Your task to perform on an android device: Open maps Image 0: 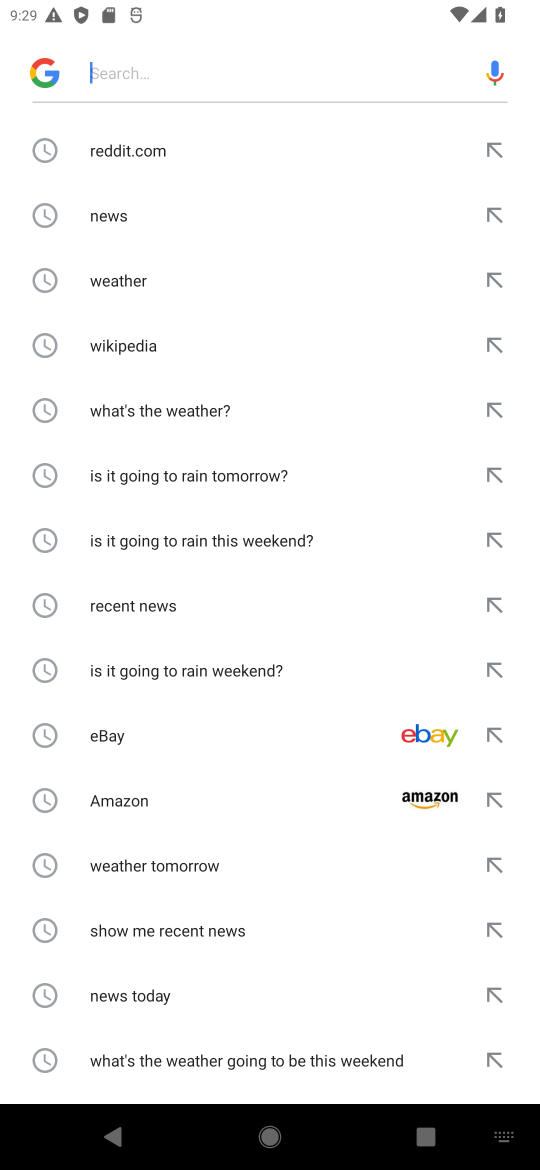
Step 0: press home button
Your task to perform on an android device: Open maps Image 1: 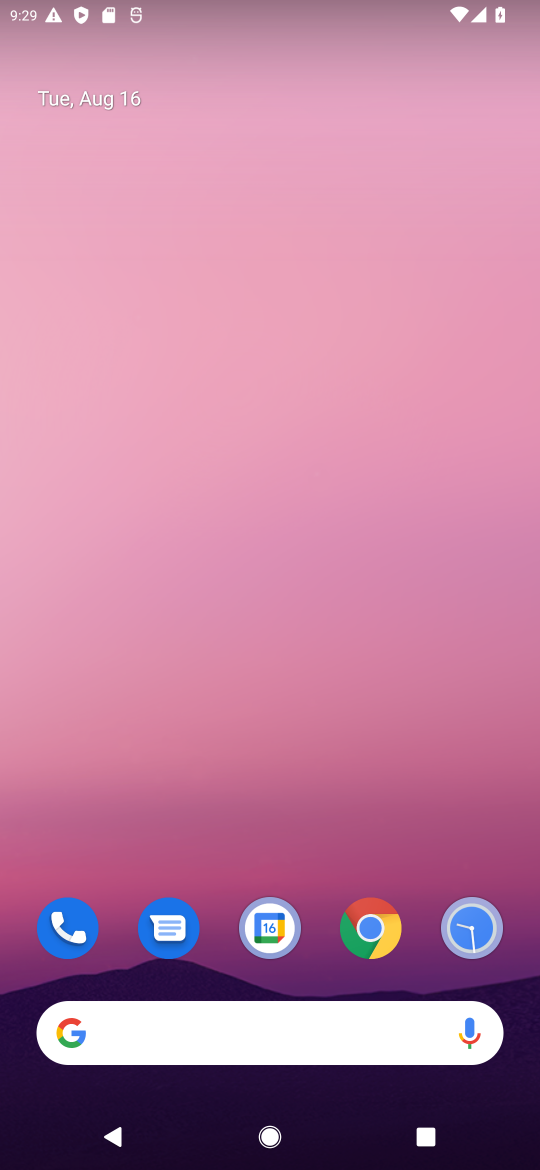
Step 1: drag from (313, 843) to (293, 228)
Your task to perform on an android device: Open maps Image 2: 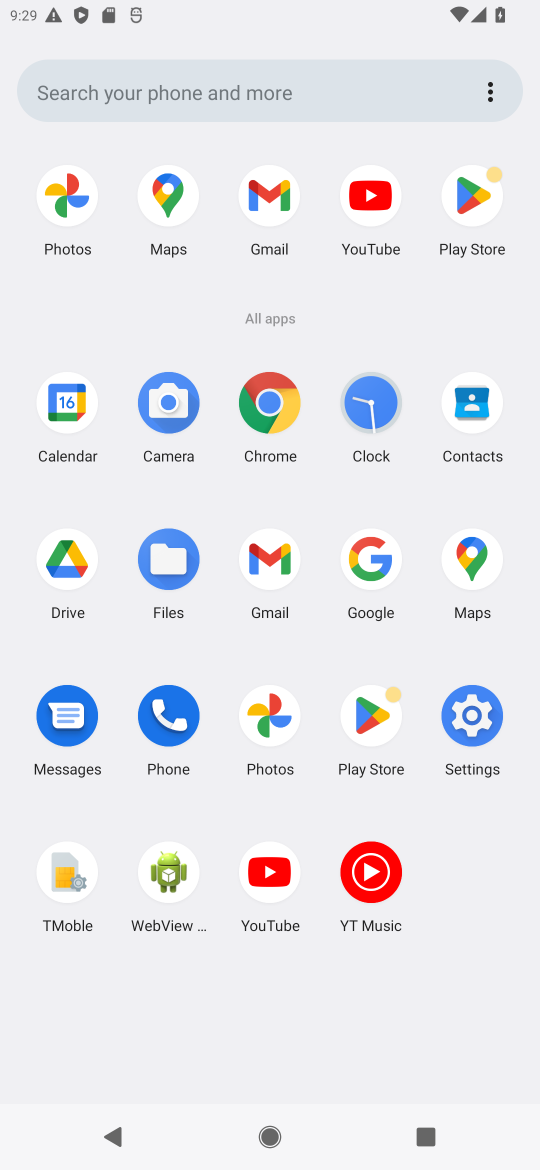
Step 2: click (457, 571)
Your task to perform on an android device: Open maps Image 3: 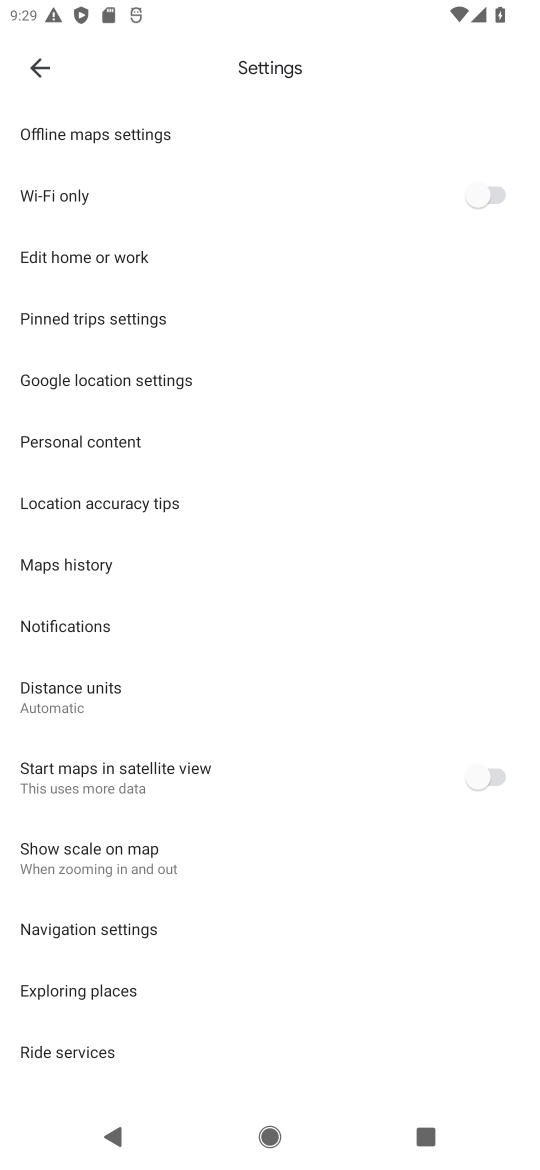
Step 3: click (36, 57)
Your task to perform on an android device: Open maps Image 4: 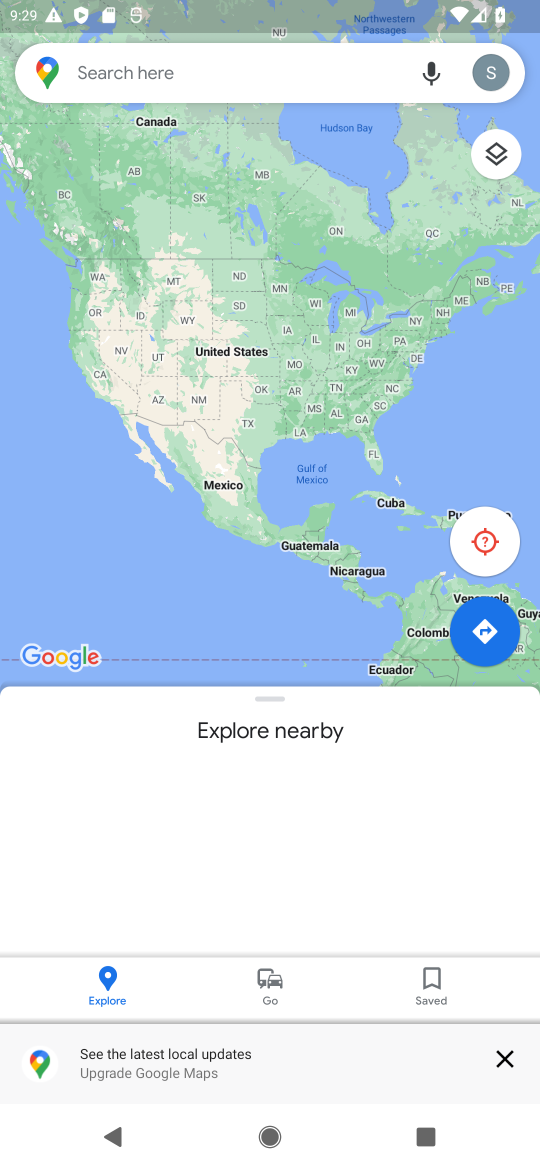
Step 4: task complete